Your task to perform on an android device: toggle improve location accuracy Image 0: 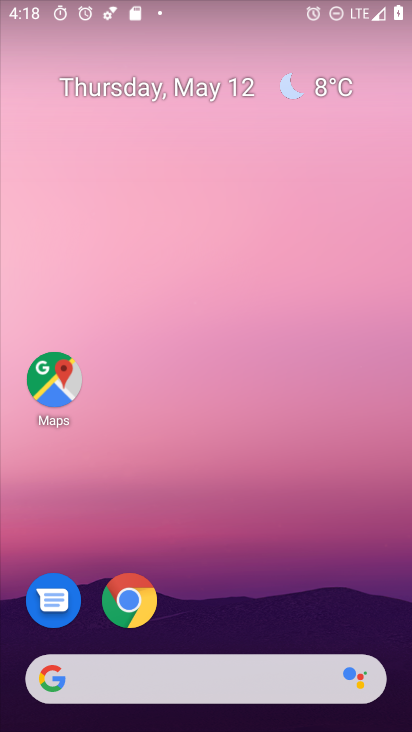
Step 0: drag from (206, 726) to (207, 215)
Your task to perform on an android device: toggle improve location accuracy Image 1: 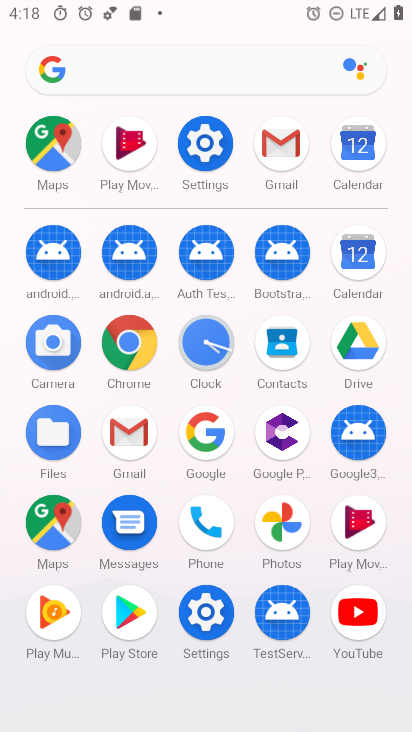
Step 1: click (207, 614)
Your task to perform on an android device: toggle improve location accuracy Image 2: 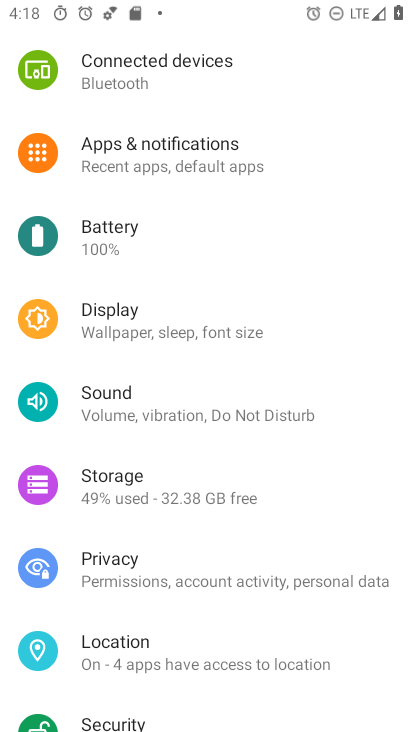
Step 2: click (115, 639)
Your task to perform on an android device: toggle improve location accuracy Image 3: 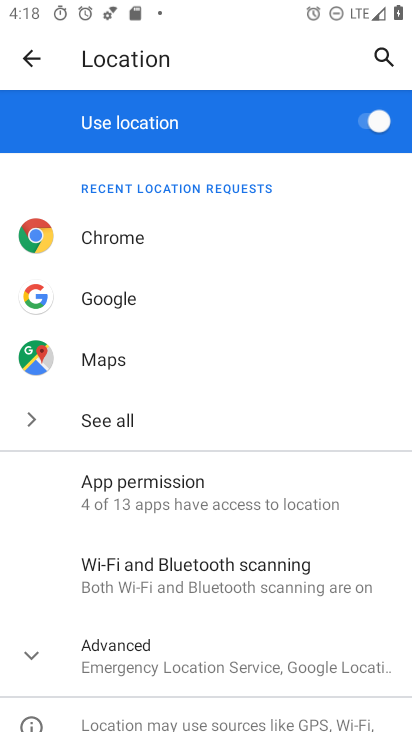
Step 3: click (121, 651)
Your task to perform on an android device: toggle improve location accuracy Image 4: 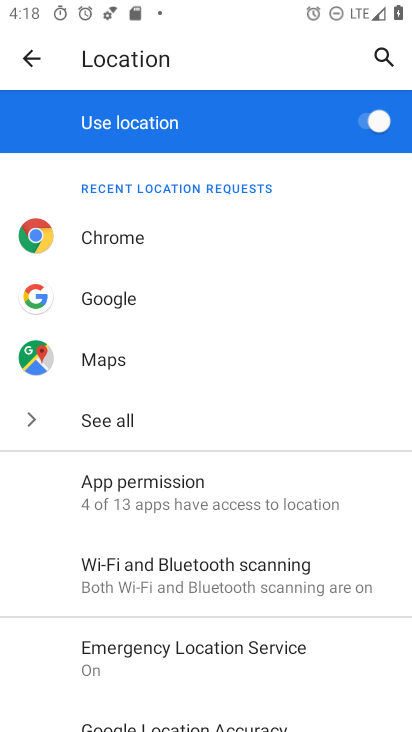
Step 4: drag from (214, 688) to (214, 363)
Your task to perform on an android device: toggle improve location accuracy Image 5: 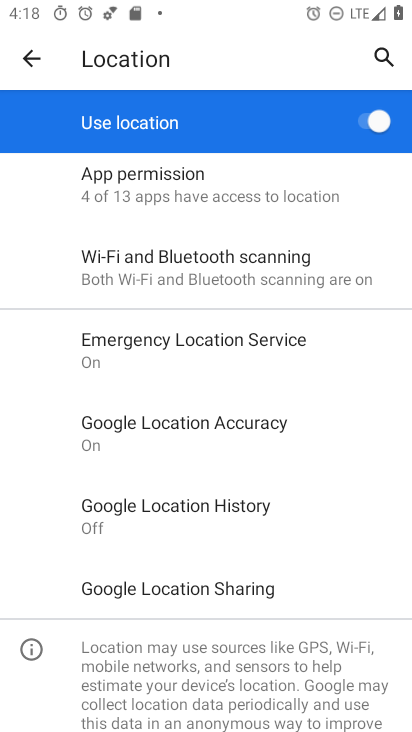
Step 5: click (206, 417)
Your task to perform on an android device: toggle improve location accuracy Image 6: 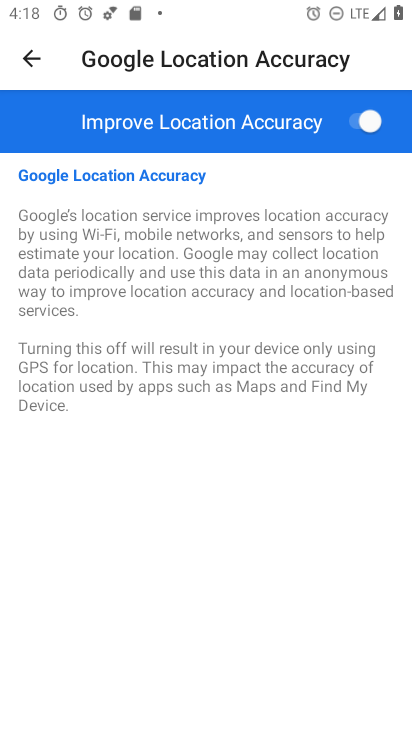
Step 6: click (359, 121)
Your task to perform on an android device: toggle improve location accuracy Image 7: 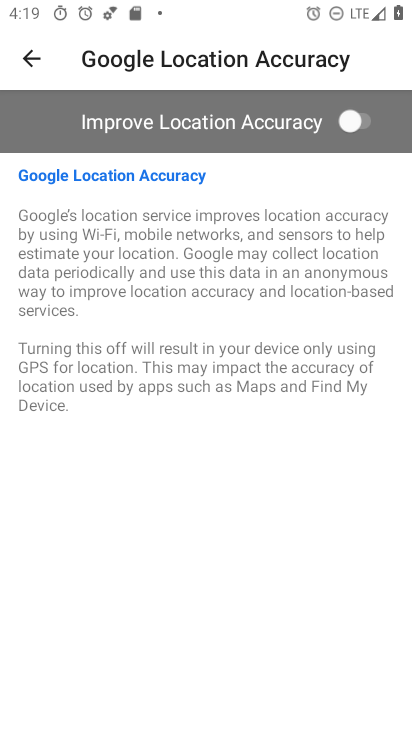
Step 7: task complete